Your task to perform on an android device: Open calendar and show me the second week of next month Image 0: 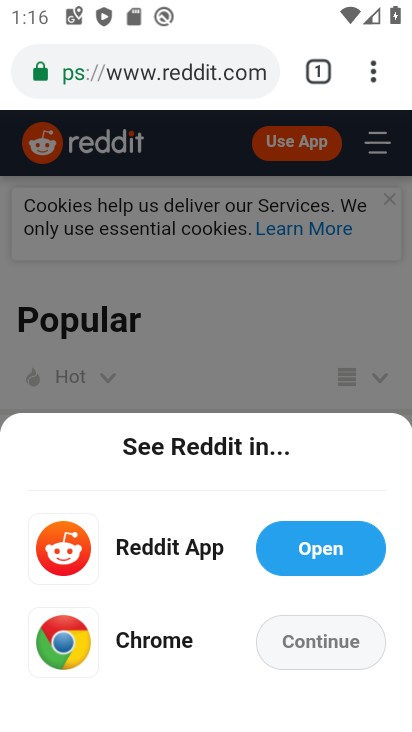
Step 0: press home button
Your task to perform on an android device: Open calendar and show me the second week of next month Image 1: 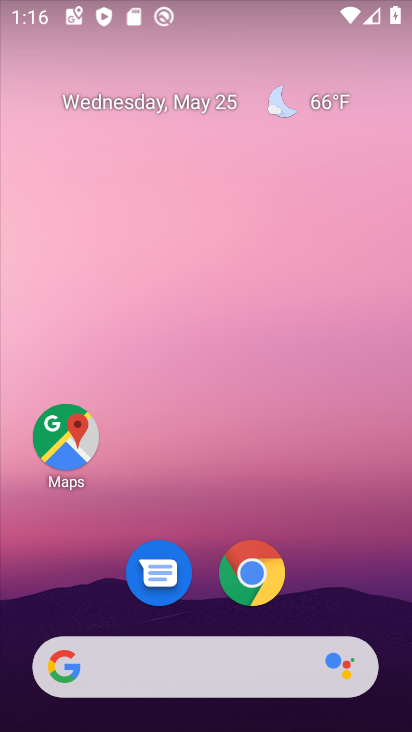
Step 1: drag from (365, 603) to (332, 52)
Your task to perform on an android device: Open calendar and show me the second week of next month Image 2: 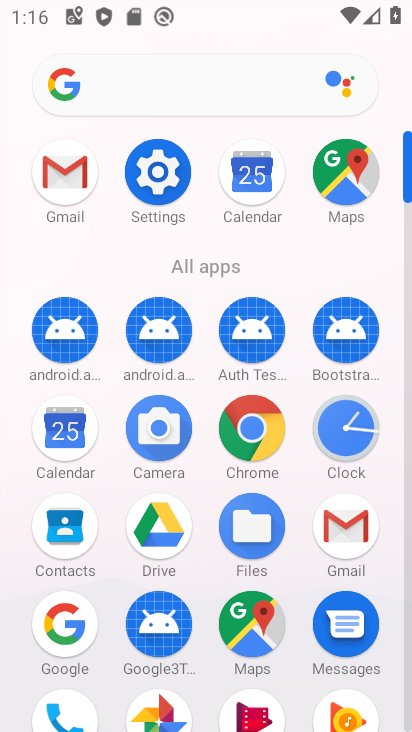
Step 2: click (406, 697)
Your task to perform on an android device: Open calendar and show me the second week of next month Image 3: 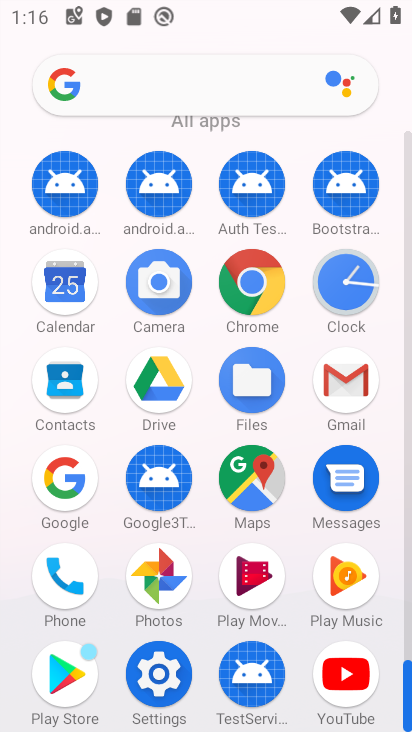
Step 3: click (66, 284)
Your task to perform on an android device: Open calendar and show me the second week of next month Image 4: 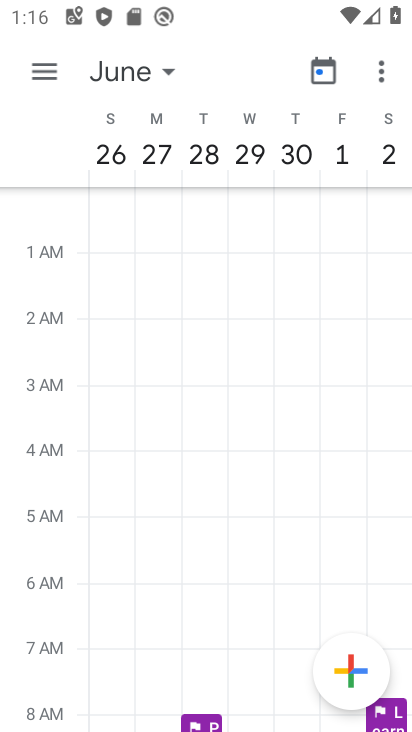
Step 4: click (163, 69)
Your task to perform on an android device: Open calendar and show me the second week of next month Image 5: 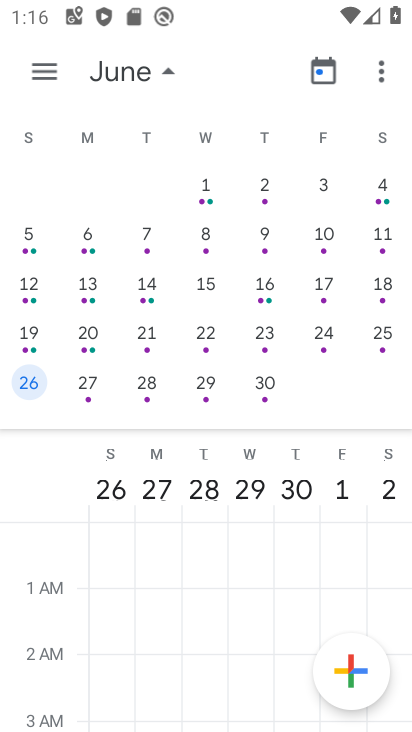
Step 5: click (27, 286)
Your task to perform on an android device: Open calendar and show me the second week of next month Image 6: 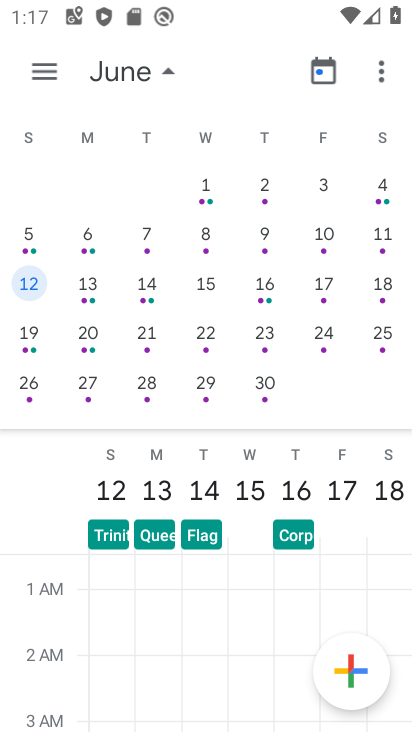
Step 6: task complete